Your task to perform on an android device: Show me recent news Image 0: 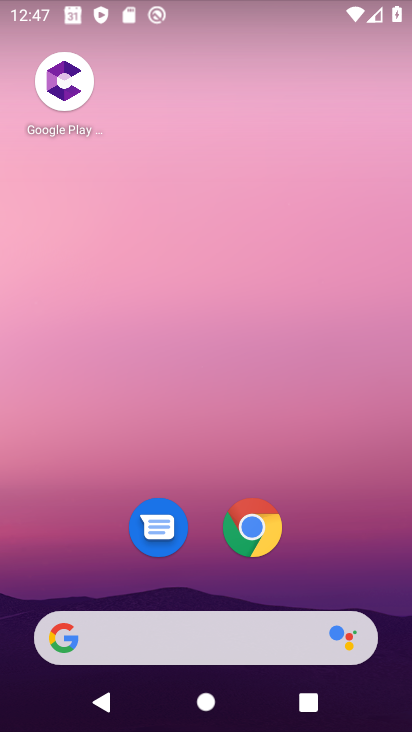
Step 0: click (170, 639)
Your task to perform on an android device: Show me recent news Image 1: 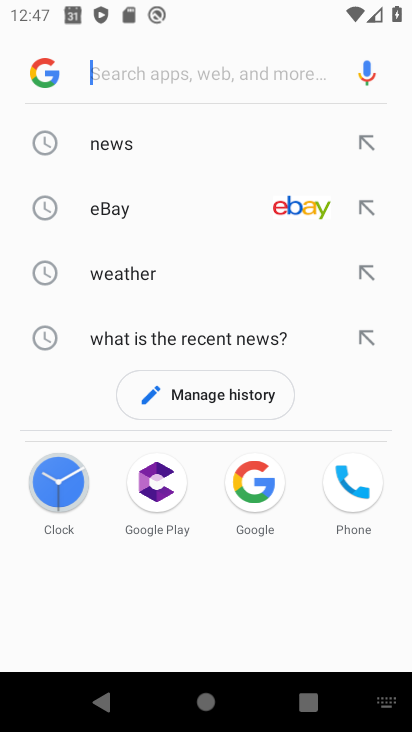
Step 1: click (137, 340)
Your task to perform on an android device: Show me recent news Image 2: 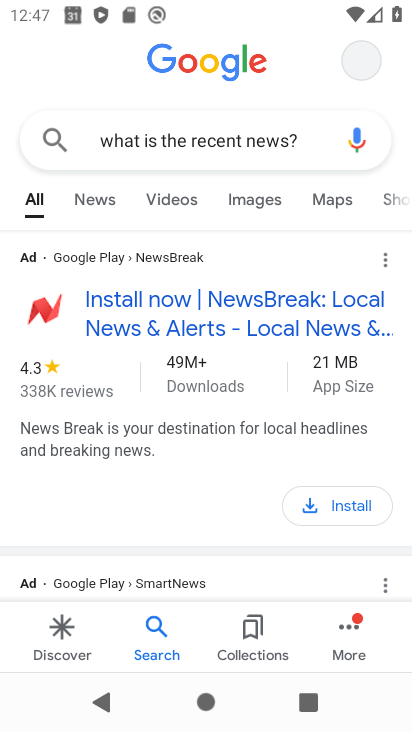
Step 2: task complete